Your task to perform on an android device: Open settings Image 0: 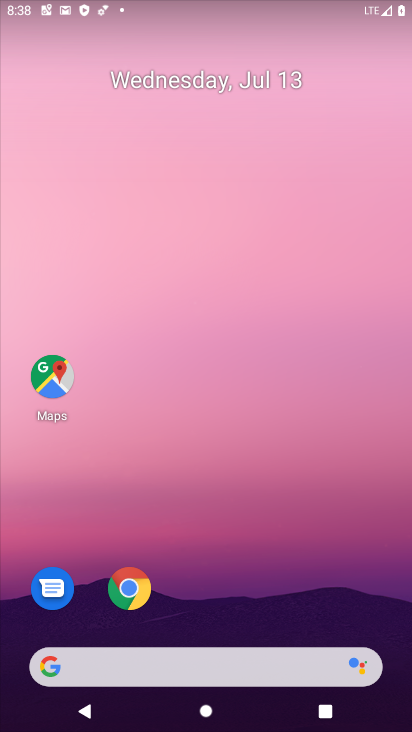
Step 0: drag from (227, 619) to (225, 183)
Your task to perform on an android device: Open settings Image 1: 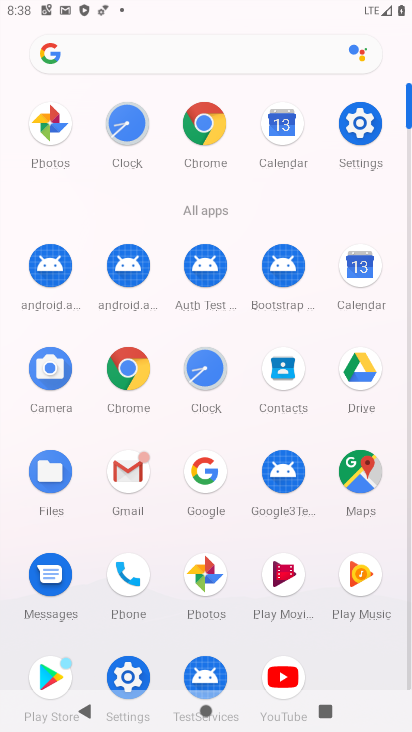
Step 1: click (364, 119)
Your task to perform on an android device: Open settings Image 2: 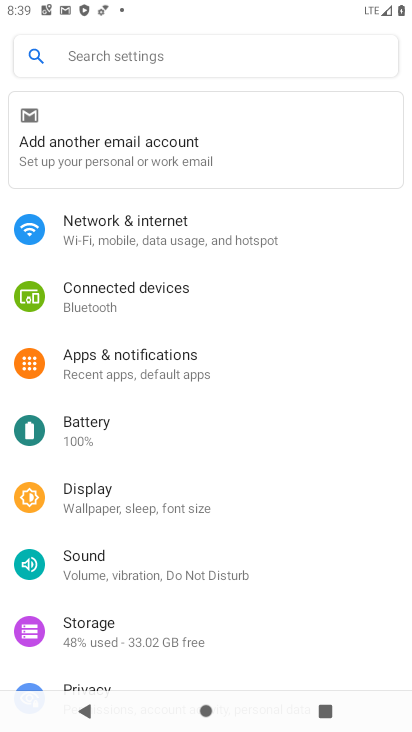
Step 2: task complete